Your task to perform on an android device: Go to Android settings Image 0: 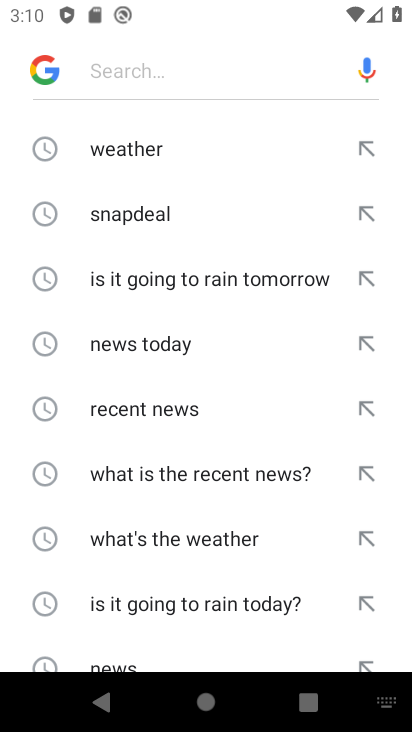
Step 0: press home button
Your task to perform on an android device: Go to Android settings Image 1: 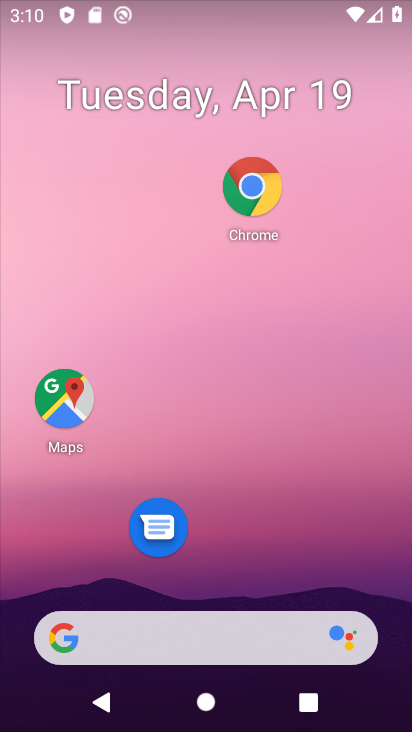
Step 1: drag from (273, 419) to (300, 218)
Your task to perform on an android device: Go to Android settings Image 2: 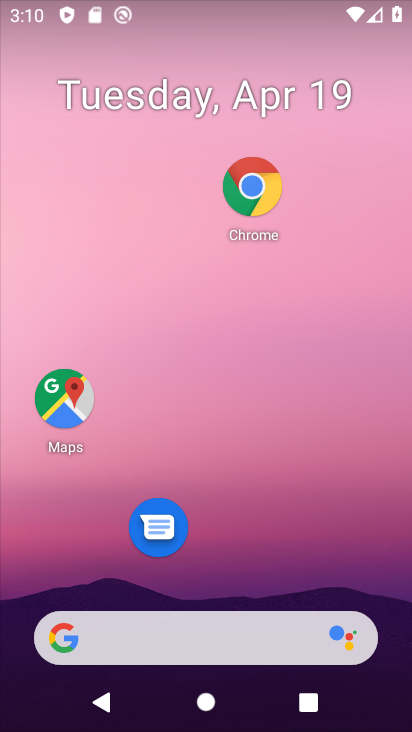
Step 2: drag from (276, 569) to (301, 203)
Your task to perform on an android device: Go to Android settings Image 3: 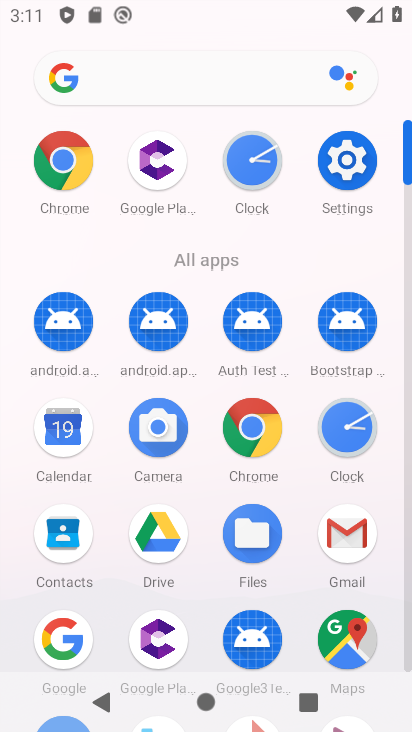
Step 3: click (352, 163)
Your task to perform on an android device: Go to Android settings Image 4: 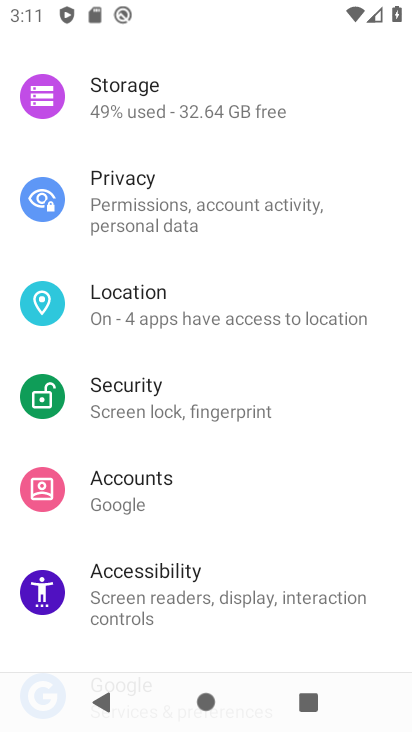
Step 4: drag from (231, 568) to (303, 109)
Your task to perform on an android device: Go to Android settings Image 5: 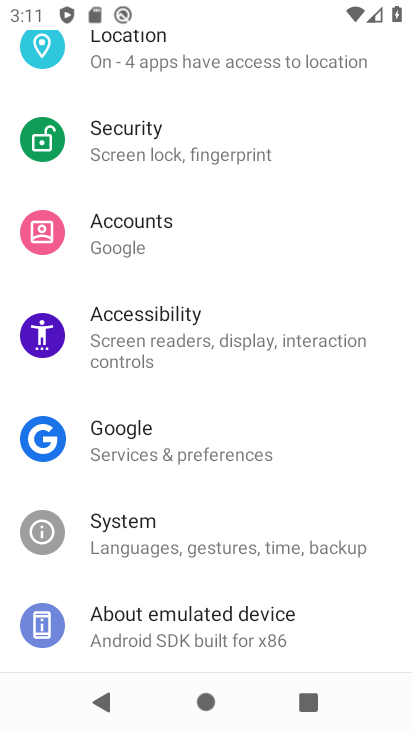
Step 5: click (210, 616)
Your task to perform on an android device: Go to Android settings Image 6: 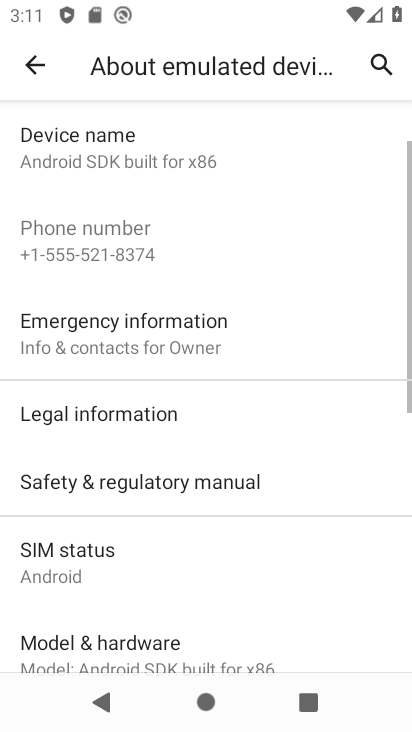
Step 6: drag from (210, 558) to (250, 133)
Your task to perform on an android device: Go to Android settings Image 7: 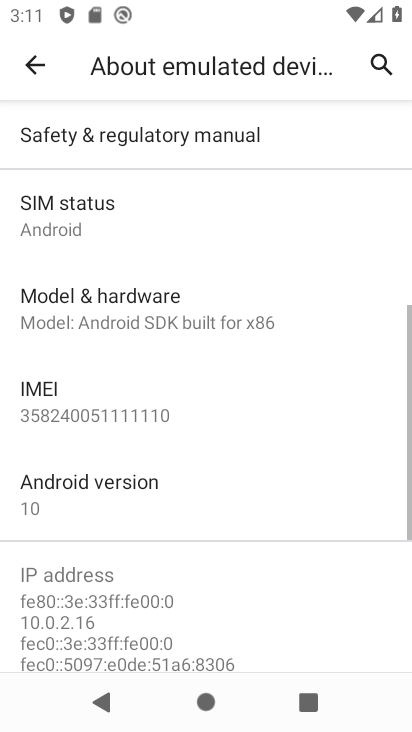
Step 7: click (171, 497)
Your task to perform on an android device: Go to Android settings Image 8: 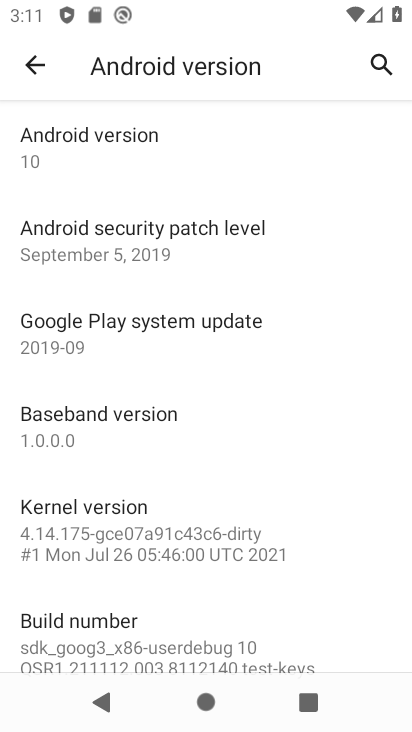
Step 8: task complete